Your task to perform on an android device: toggle priority inbox in the gmail app Image 0: 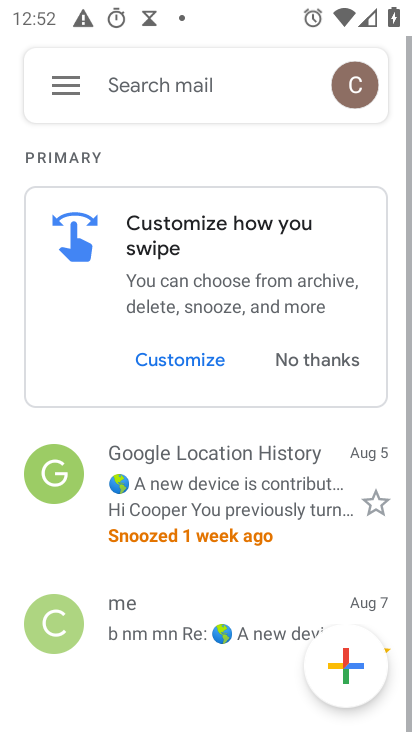
Step 0: press home button
Your task to perform on an android device: toggle priority inbox in the gmail app Image 1: 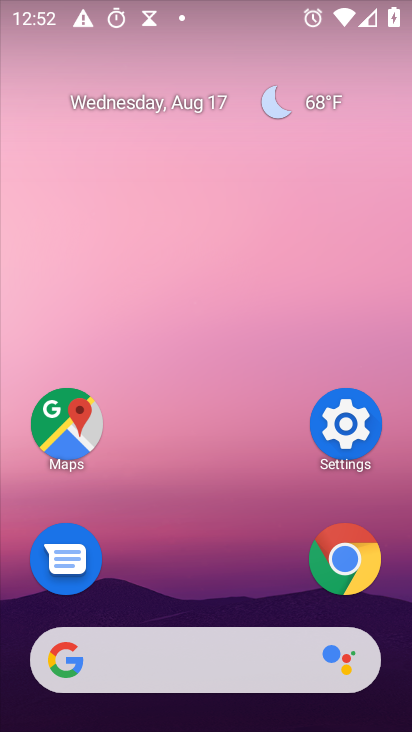
Step 1: drag from (256, 531) to (327, 1)
Your task to perform on an android device: toggle priority inbox in the gmail app Image 2: 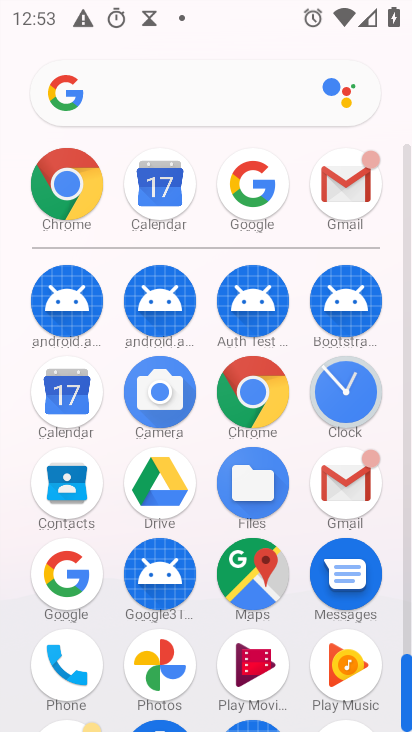
Step 2: click (346, 181)
Your task to perform on an android device: toggle priority inbox in the gmail app Image 3: 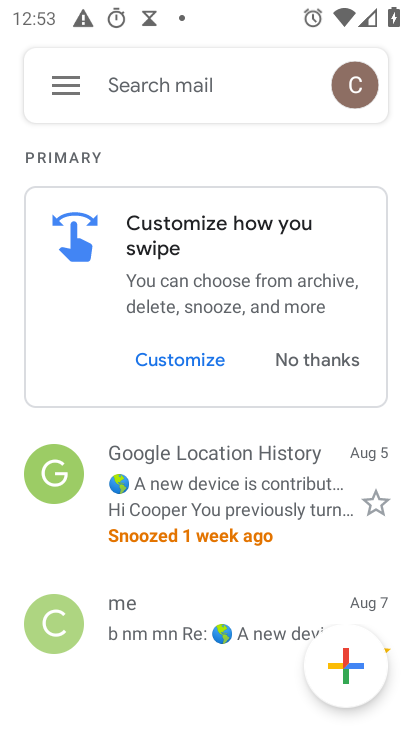
Step 3: click (66, 85)
Your task to perform on an android device: toggle priority inbox in the gmail app Image 4: 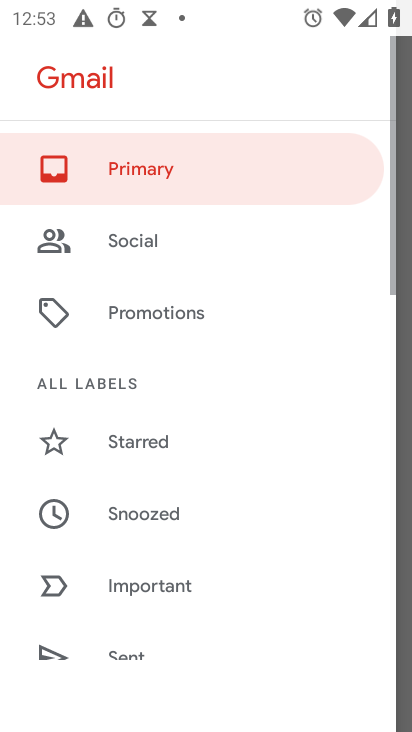
Step 4: drag from (261, 475) to (283, 209)
Your task to perform on an android device: toggle priority inbox in the gmail app Image 5: 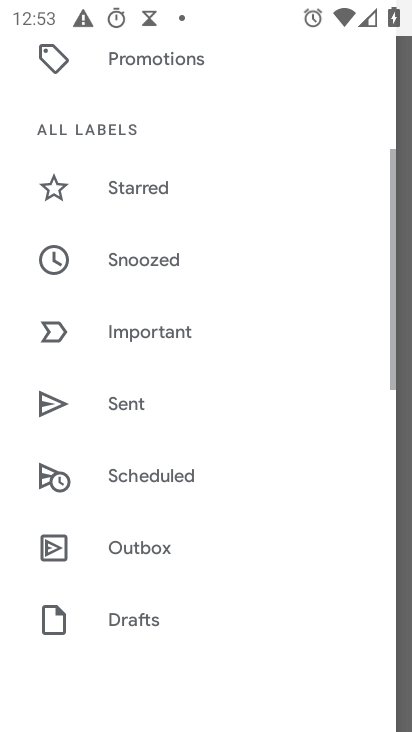
Step 5: drag from (251, 404) to (325, 34)
Your task to perform on an android device: toggle priority inbox in the gmail app Image 6: 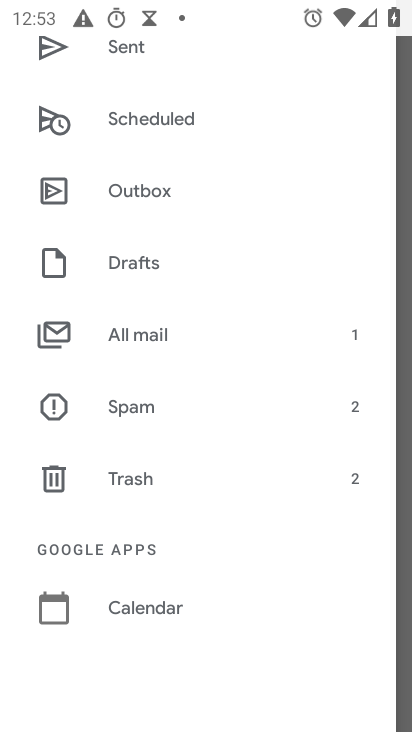
Step 6: drag from (302, 541) to (303, 140)
Your task to perform on an android device: toggle priority inbox in the gmail app Image 7: 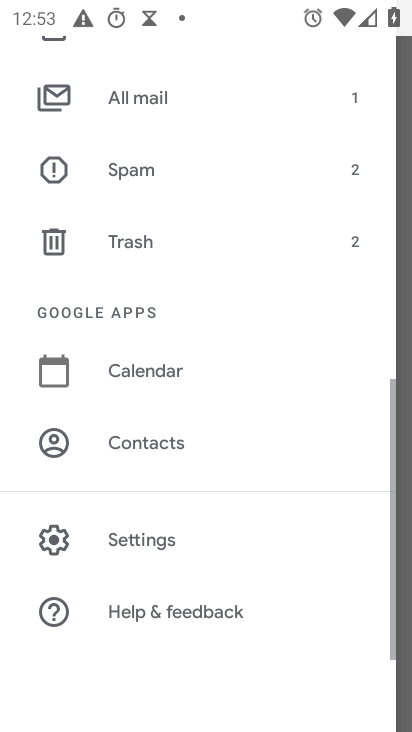
Step 7: click (169, 540)
Your task to perform on an android device: toggle priority inbox in the gmail app Image 8: 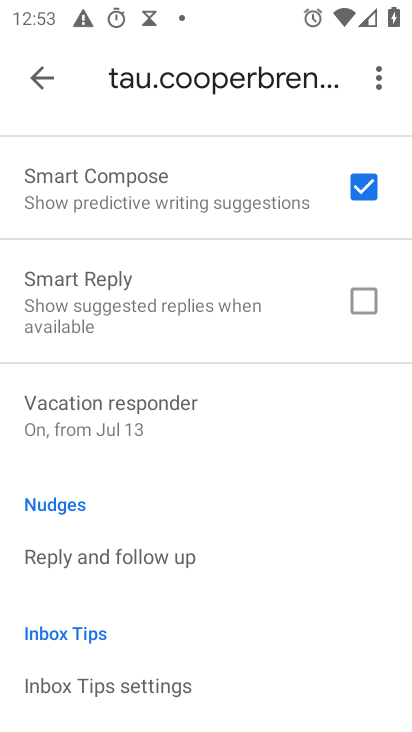
Step 8: drag from (270, 263) to (313, 677)
Your task to perform on an android device: toggle priority inbox in the gmail app Image 9: 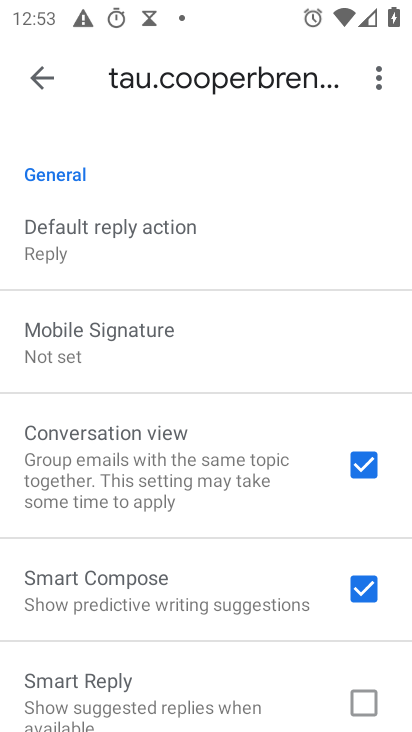
Step 9: drag from (277, 195) to (334, 570)
Your task to perform on an android device: toggle priority inbox in the gmail app Image 10: 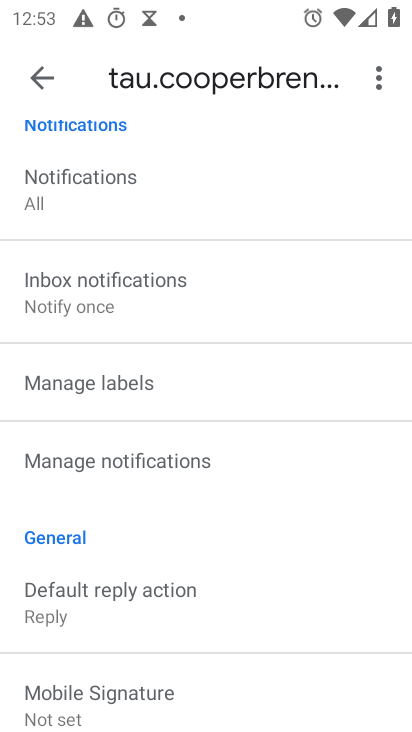
Step 10: drag from (266, 196) to (282, 587)
Your task to perform on an android device: toggle priority inbox in the gmail app Image 11: 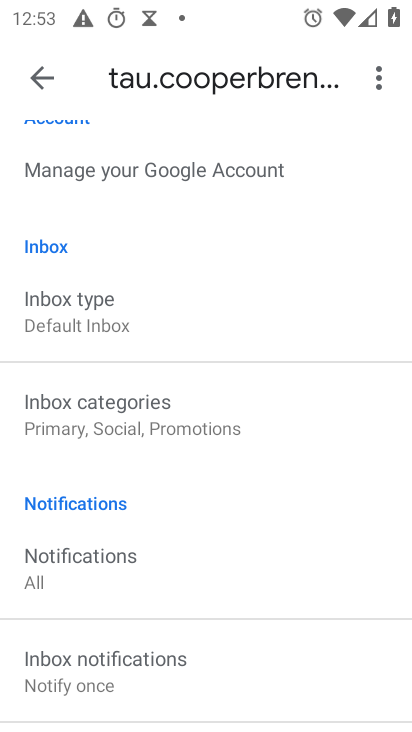
Step 11: click (98, 321)
Your task to perform on an android device: toggle priority inbox in the gmail app Image 12: 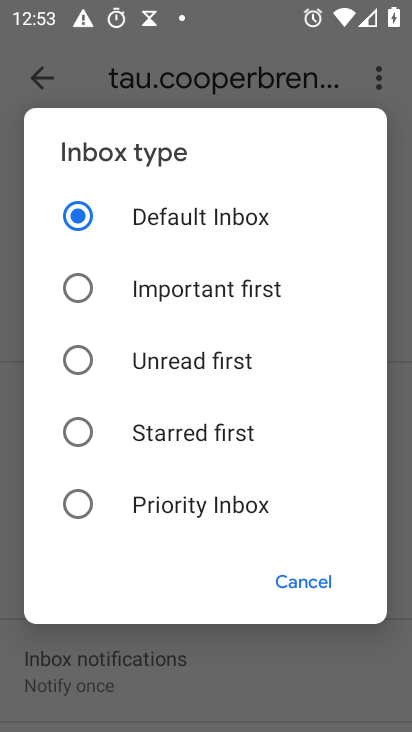
Step 12: click (71, 506)
Your task to perform on an android device: toggle priority inbox in the gmail app Image 13: 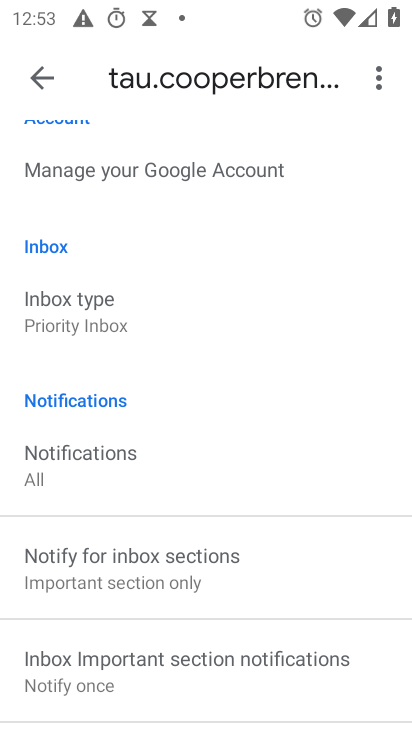
Step 13: task complete